Your task to perform on an android device: turn on translation in the chrome app Image 0: 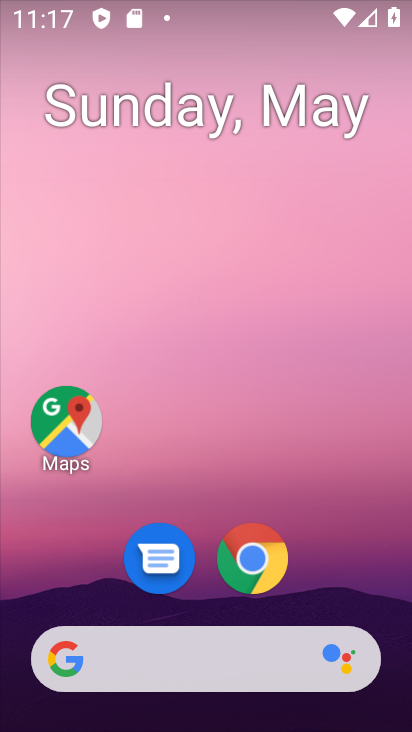
Step 0: drag from (352, 558) to (362, 111)
Your task to perform on an android device: turn on translation in the chrome app Image 1: 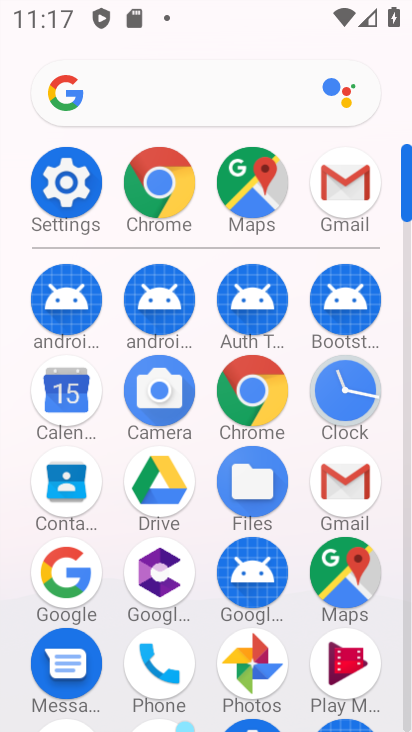
Step 1: click (172, 185)
Your task to perform on an android device: turn on translation in the chrome app Image 2: 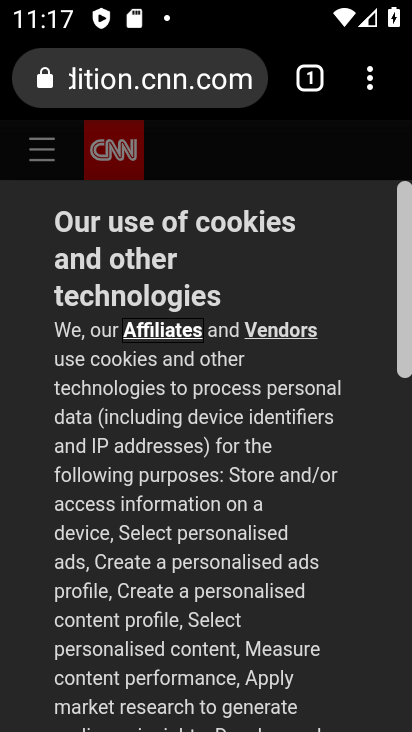
Step 2: click (366, 83)
Your task to perform on an android device: turn on translation in the chrome app Image 3: 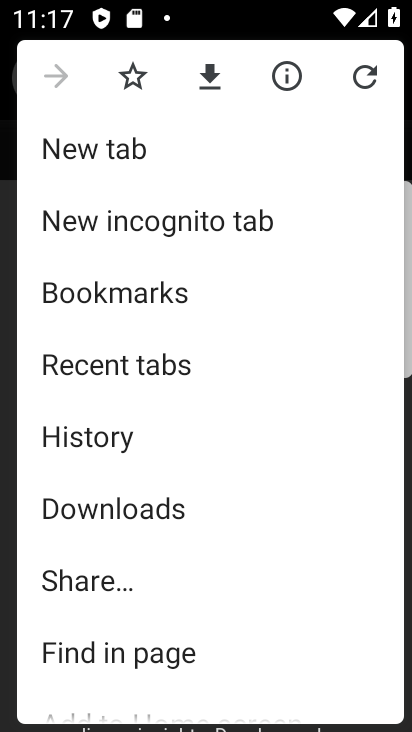
Step 3: drag from (318, 604) to (332, 445)
Your task to perform on an android device: turn on translation in the chrome app Image 4: 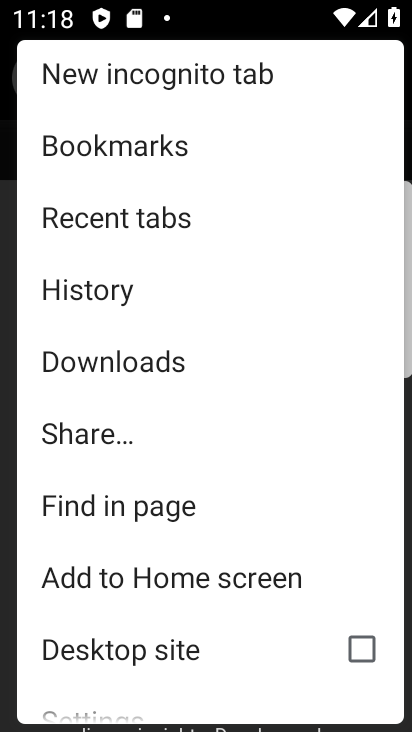
Step 4: drag from (294, 644) to (308, 423)
Your task to perform on an android device: turn on translation in the chrome app Image 5: 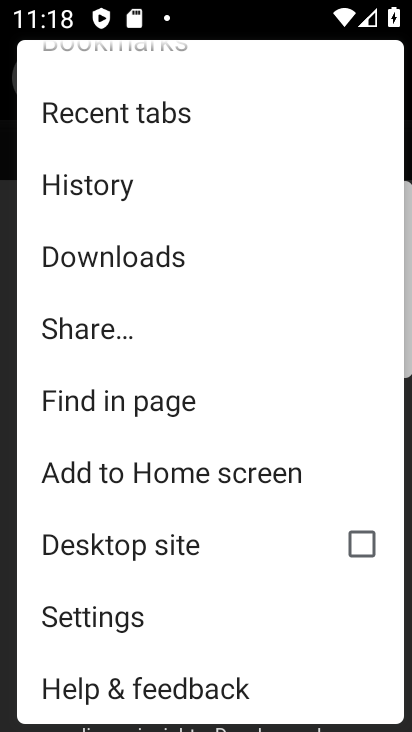
Step 5: click (142, 628)
Your task to perform on an android device: turn on translation in the chrome app Image 6: 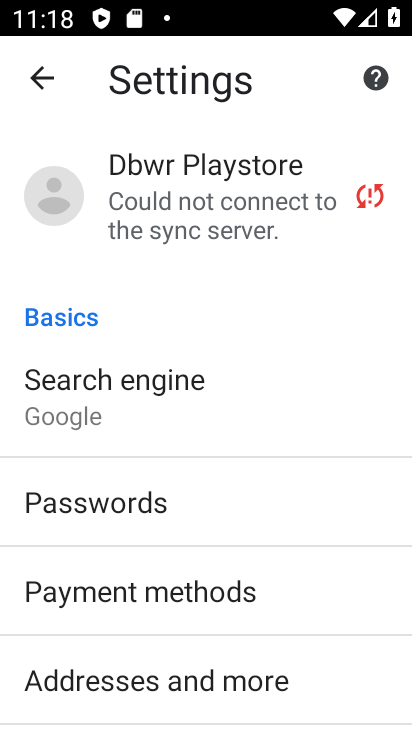
Step 6: drag from (323, 633) to (337, 492)
Your task to perform on an android device: turn on translation in the chrome app Image 7: 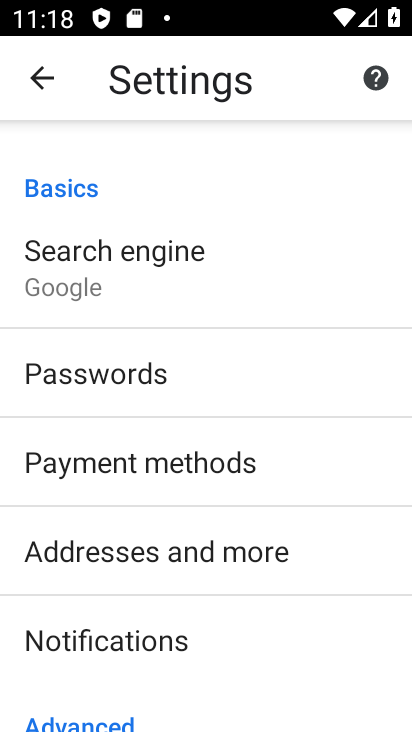
Step 7: drag from (321, 679) to (322, 562)
Your task to perform on an android device: turn on translation in the chrome app Image 8: 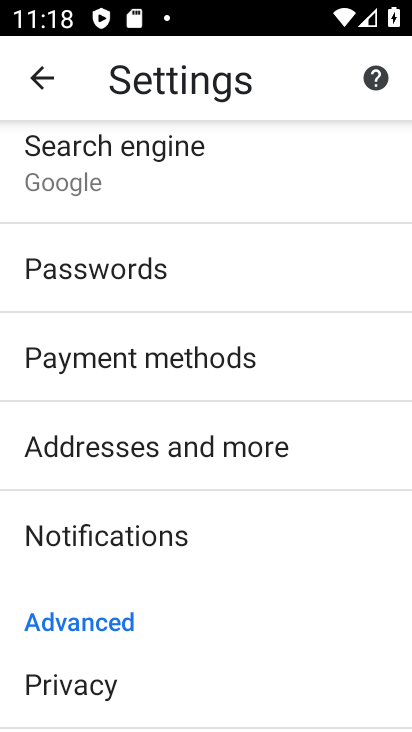
Step 8: drag from (309, 632) to (306, 519)
Your task to perform on an android device: turn on translation in the chrome app Image 9: 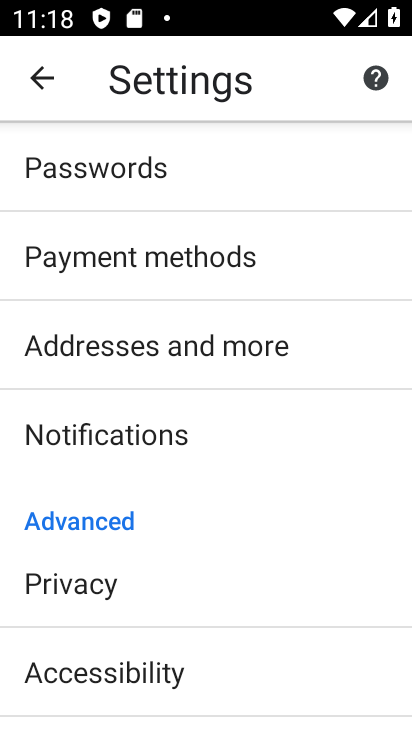
Step 9: drag from (317, 692) to (313, 541)
Your task to perform on an android device: turn on translation in the chrome app Image 10: 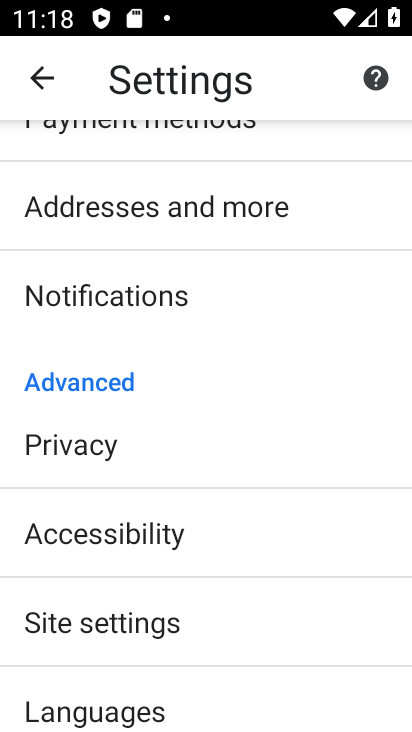
Step 10: drag from (286, 669) to (295, 470)
Your task to perform on an android device: turn on translation in the chrome app Image 11: 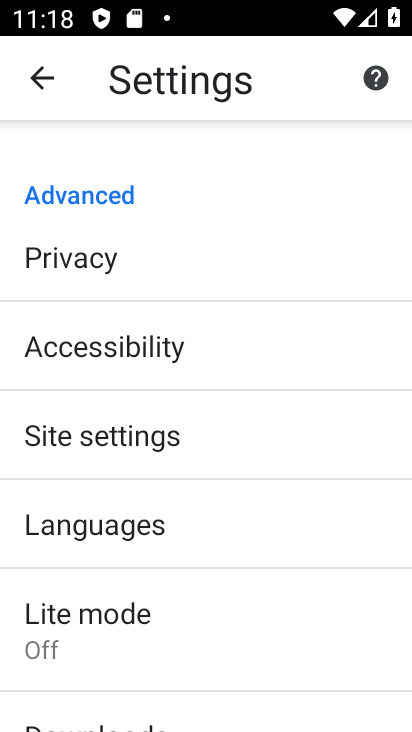
Step 11: drag from (299, 672) to (311, 558)
Your task to perform on an android device: turn on translation in the chrome app Image 12: 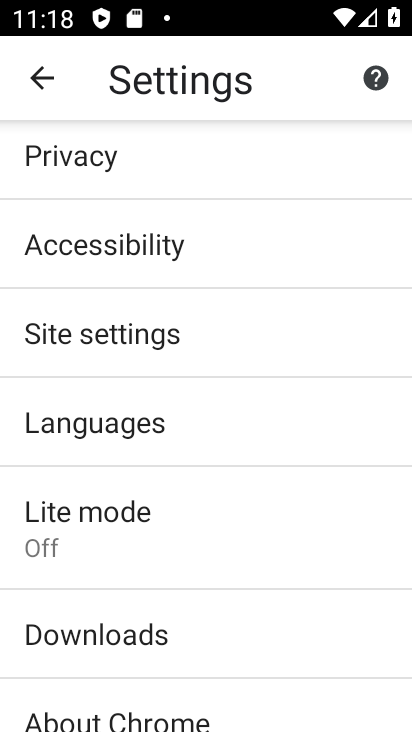
Step 12: click (222, 409)
Your task to perform on an android device: turn on translation in the chrome app Image 13: 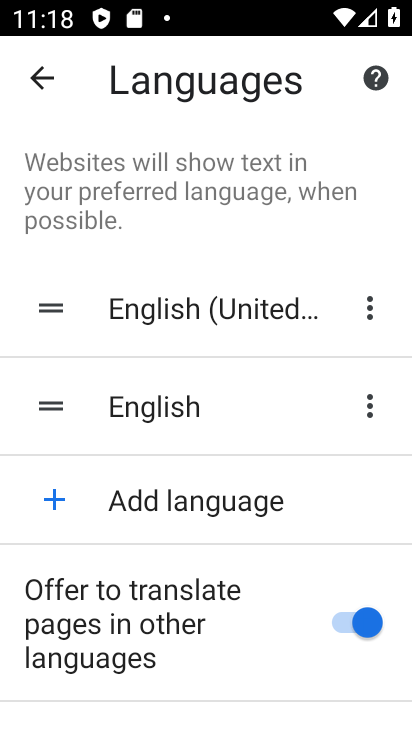
Step 13: task complete